Your task to perform on an android device: turn off javascript in the chrome app Image 0: 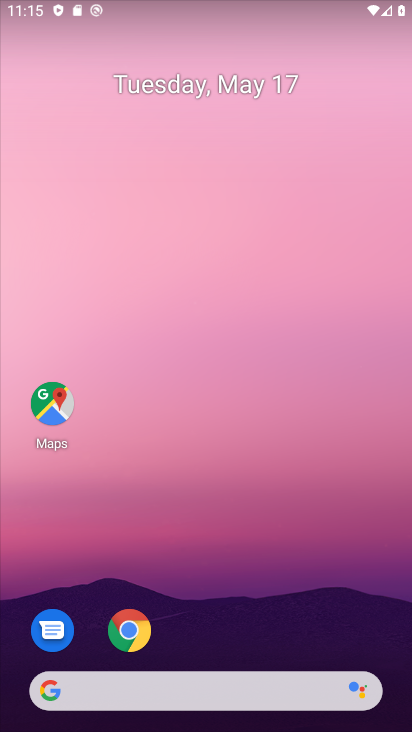
Step 0: click (122, 615)
Your task to perform on an android device: turn off javascript in the chrome app Image 1: 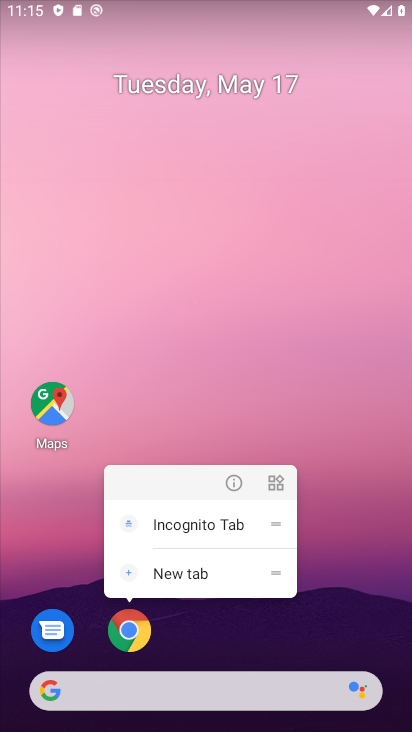
Step 1: click (134, 629)
Your task to perform on an android device: turn off javascript in the chrome app Image 2: 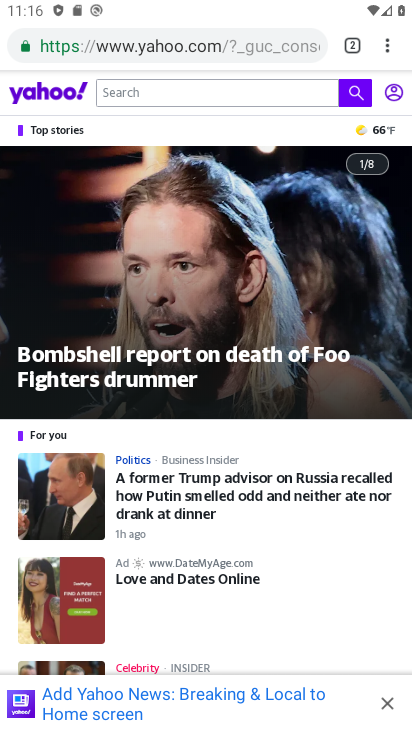
Step 2: click (381, 41)
Your task to perform on an android device: turn off javascript in the chrome app Image 3: 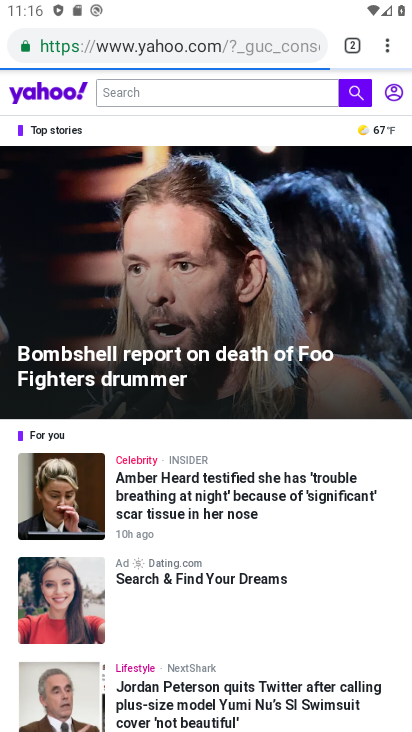
Step 3: drag from (389, 36) to (225, 557)
Your task to perform on an android device: turn off javascript in the chrome app Image 4: 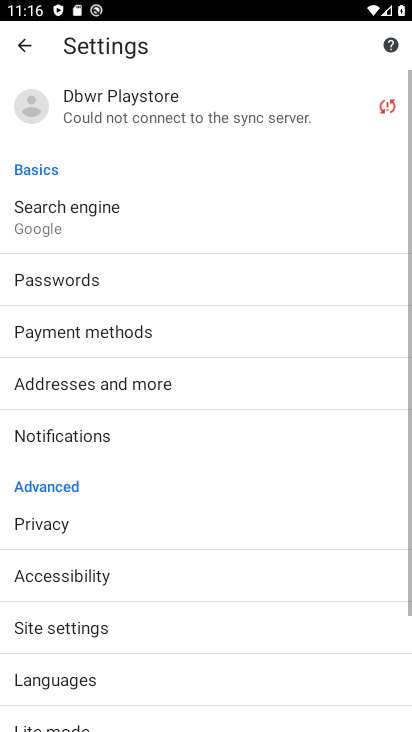
Step 4: drag from (56, 679) to (151, 346)
Your task to perform on an android device: turn off javascript in the chrome app Image 5: 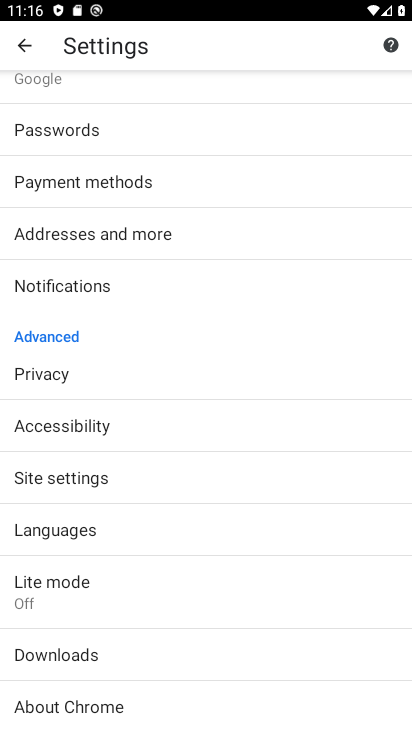
Step 5: click (93, 477)
Your task to perform on an android device: turn off javascript in the chrome app Image 6: 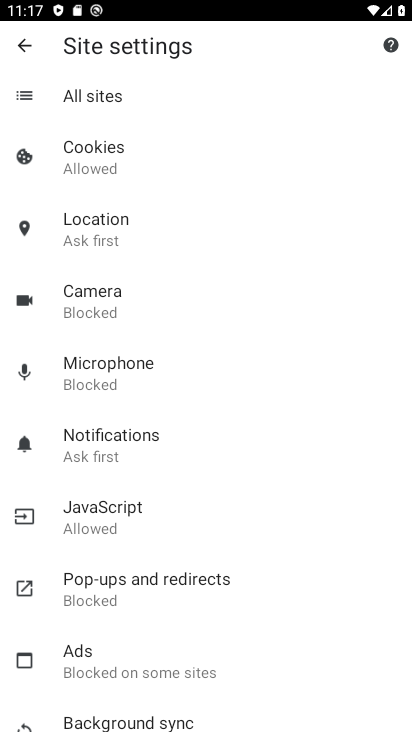
Step 6: click (94, 506)
Your task to perform on an android device: turn off javascript in the chrome app Image 7: 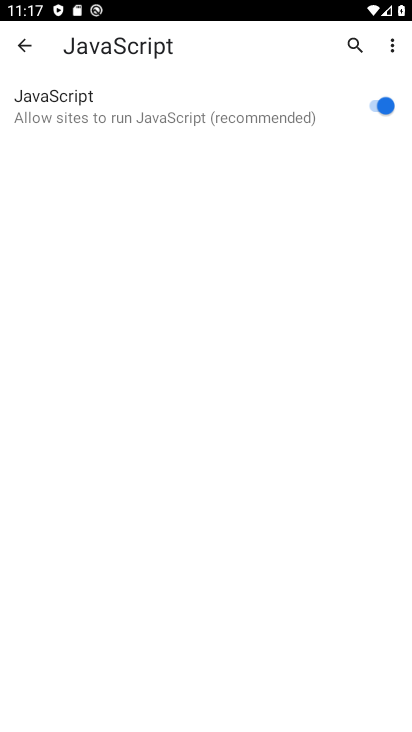
Step 7: click (381, 106)
Your task to perform on an android device: turn off javascript in the chrome app Image 8: 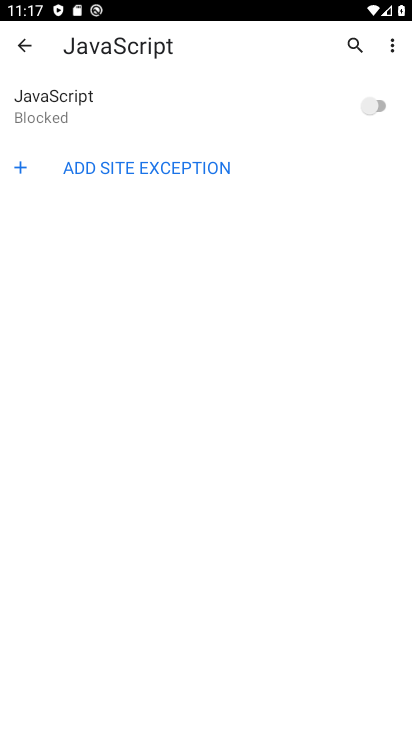
Step 8: task complete